Your task to perform on an android device: Open the Play Movies app and select the watchlist tab. Image 0: 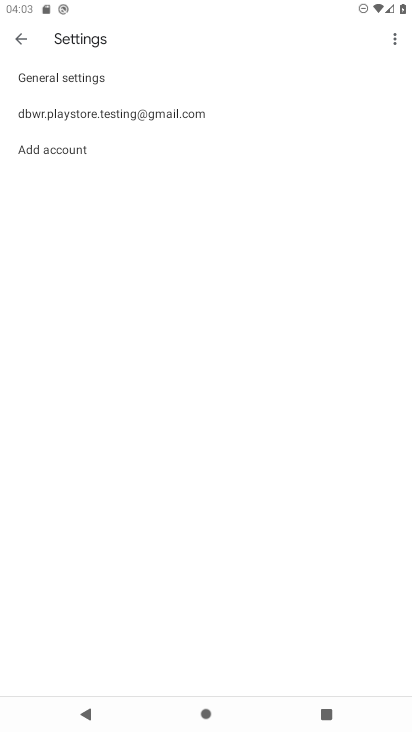
Step 0: press home button
Your task to perform on an android device: Open the Play Movies app and select the watchlist tab. Image 1: 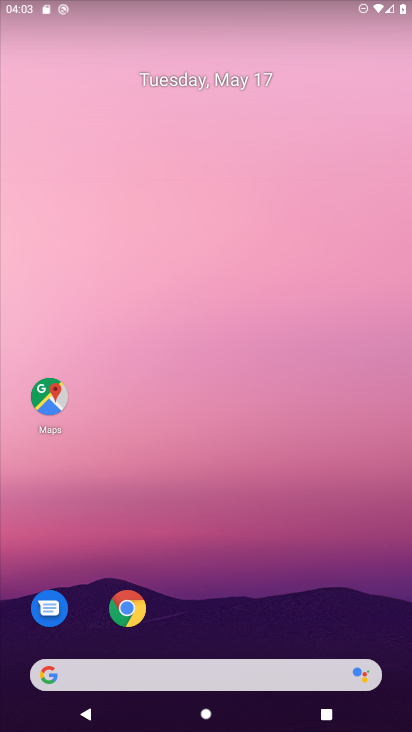
Step 1: drag from (167, 609) to (253, 242)
Your task to perform on an android device: Open the Play Movies app and select the watchlist tab. Image 2: 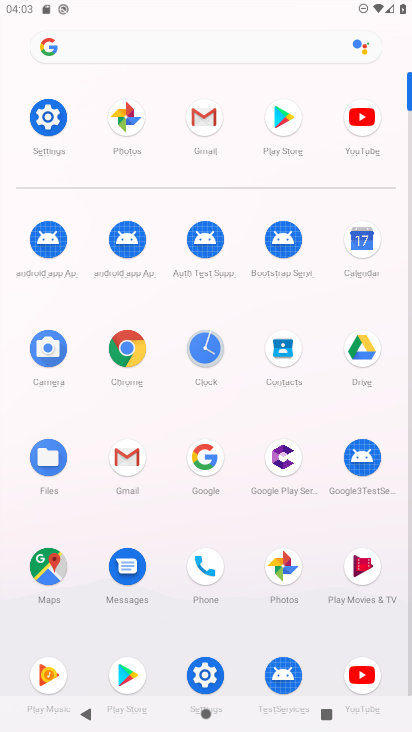
Step 2: click (358, 574)
Your task to perform on an android device: Open the Play Movies app and select the watchlist tab. Image 3: 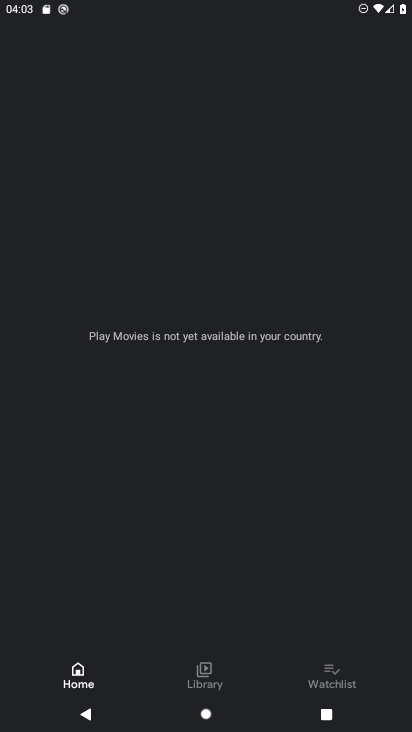
Step 3: click (322, 681)
Your task to perform on an android device: Open the Play Movies app and select the watchlist tab. Image 4: 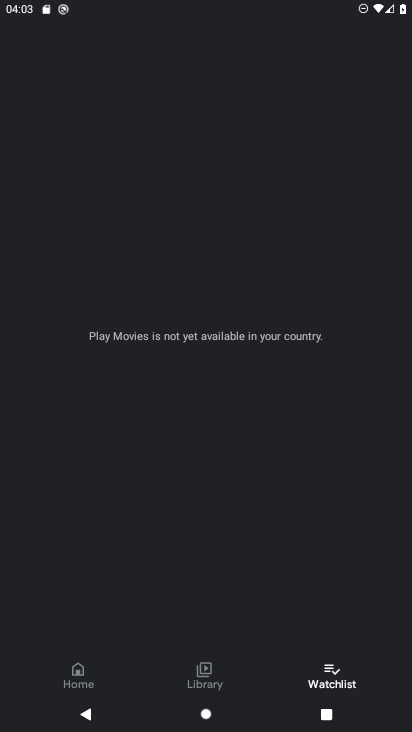
Step 4: task complete